Your task to perform on an android device: Search for vegetarian restaurants on Maps Image 0: 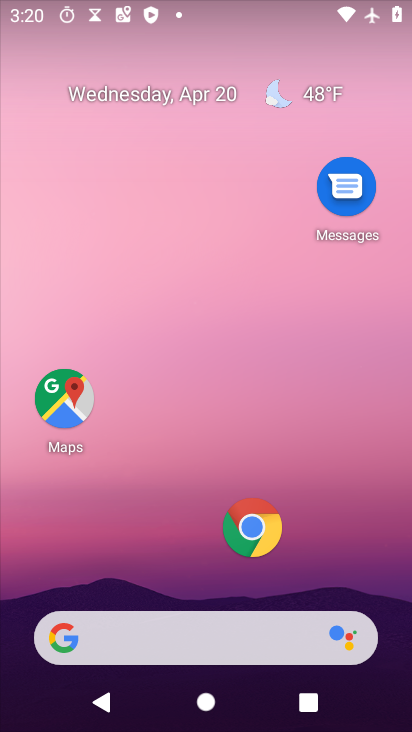
Step 0: drag from (197, 553) to (318, 54)
Your task to perform on an android device: Search for vegetarian restaurants on Maps Image 1: 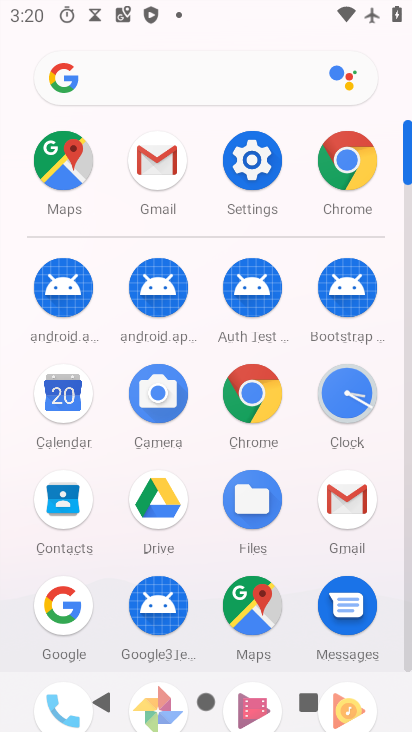
Step 1: click (73, 172)
Your task to perform on an android device: Search for vegetarian restaurants on Maps Image 2: 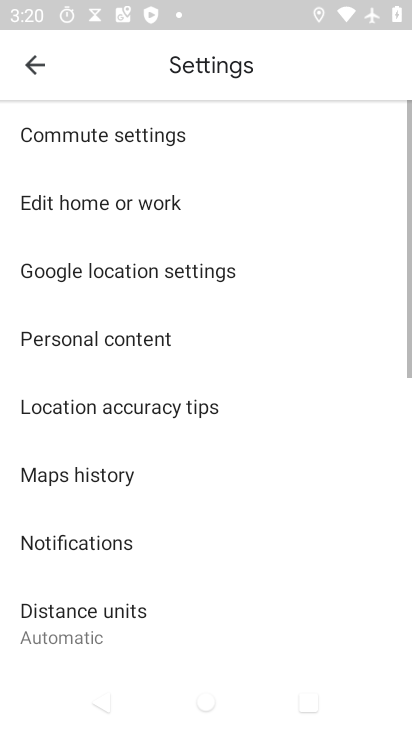
Step 2: click (38, 69)
Your task to perform on an android device: Search for vegetarian restaurants on Maps Image 3: 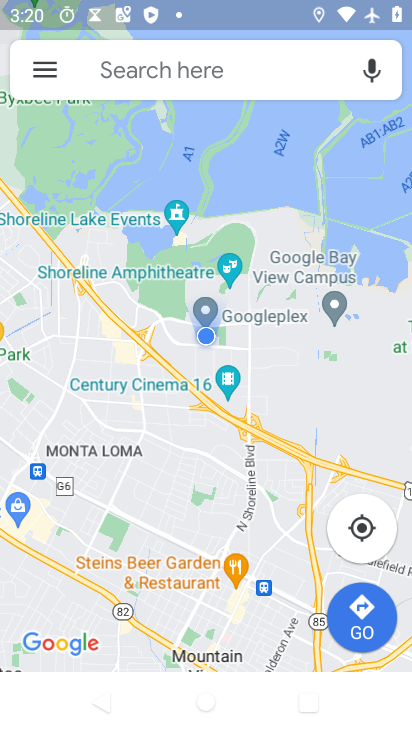
Step 3: click (176, 66)
Your task to perform on an android device: Search for vegetarian restaurants on Maps Image 4: 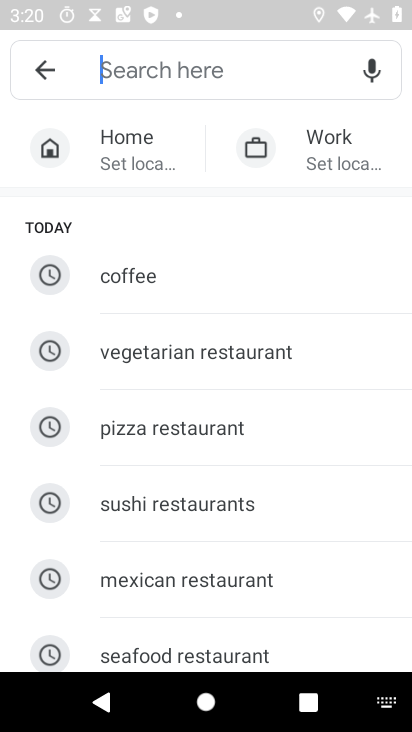
Step 4: click (135, 355)
Your task to perform on an android device: Search for vegetarian restaurants on Maps Image 5: 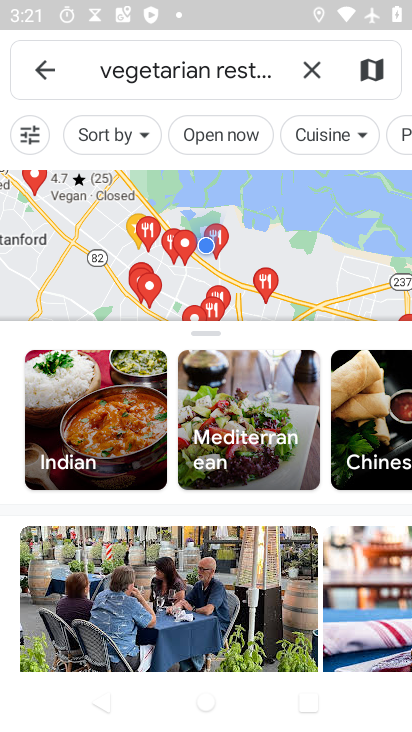
Step 5: task complete